Your task to perform on an android device: set the stopwatch Image 0: 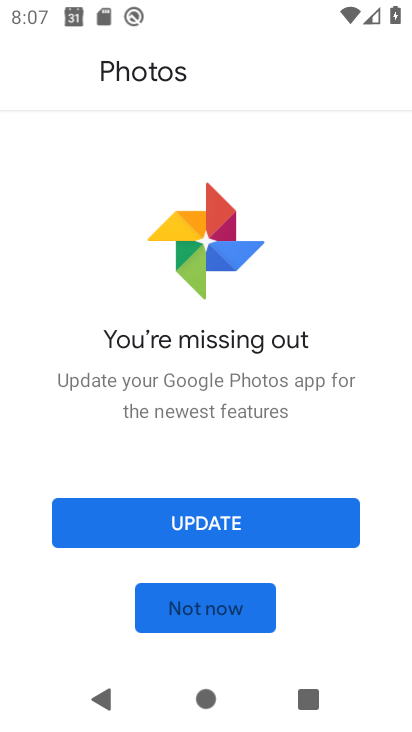
Step 0: press home button
Your task to perform on an android device: set the stopwatch Image 1: 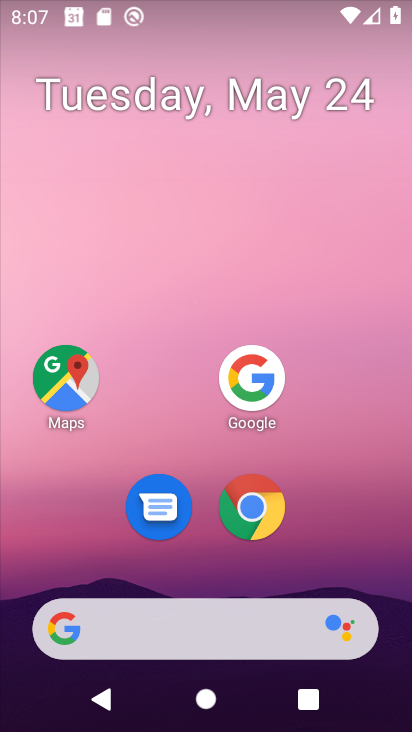
Step 1: drag from (170, 638) to (326, 92)
Your task to perform on an android device: set the stopwatch Image 2: 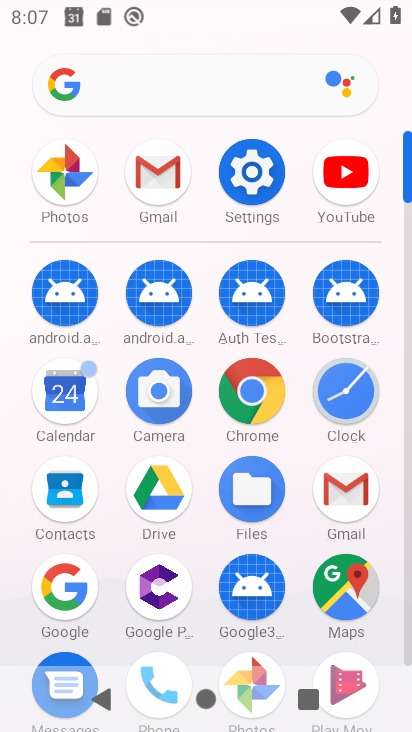
Step 2: click (347, 395)
Your task to perform on an android device: set the stopwatch Image 3: 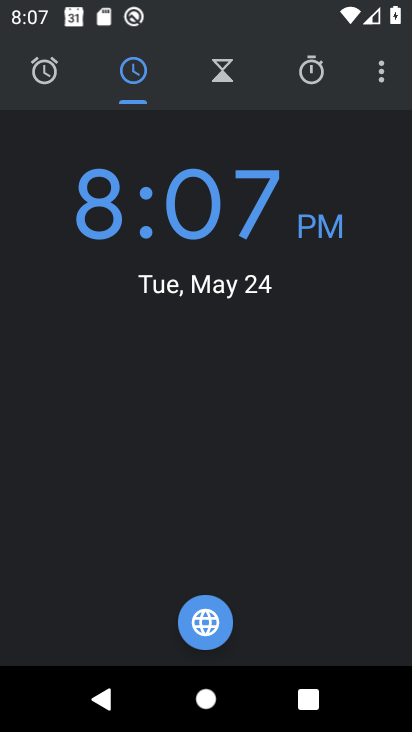
Step 3: click (304, 66)
Your task to perform on an android device: set the stopwatch Image 4: 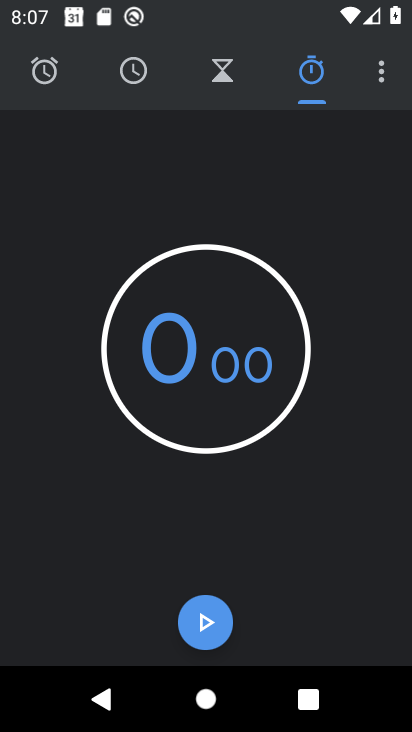
Step 4: click (199, 369)
Your task to perform on an android device: set the stopwatch Image 5: 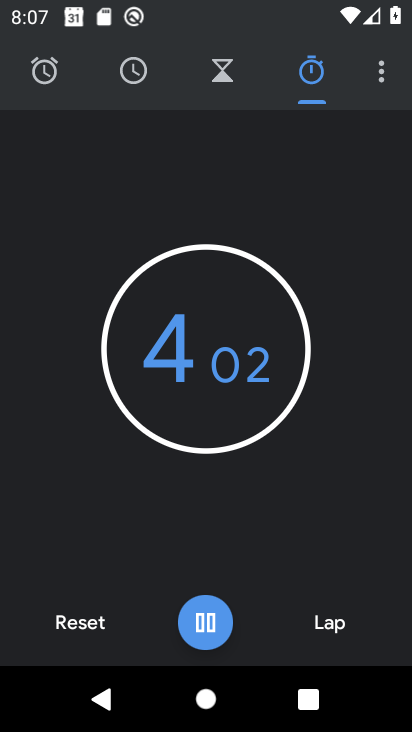
Step 5: click (199, 369)
Your task to perform on an android device: set the stopwatch Image 6: 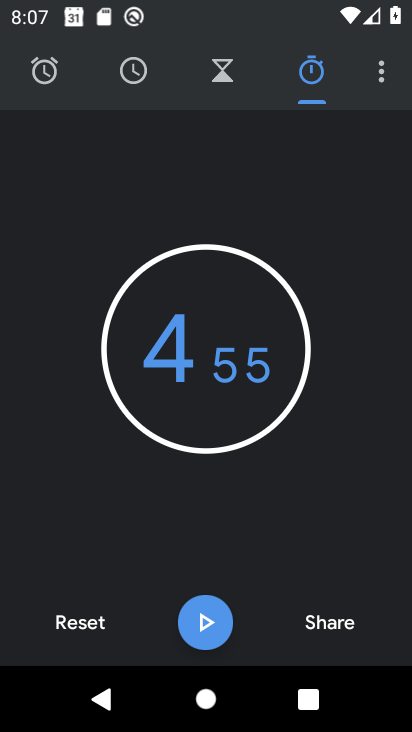
Step 6: task complete